Your task to perform on an android device: Toggle the flashlight Image 0: 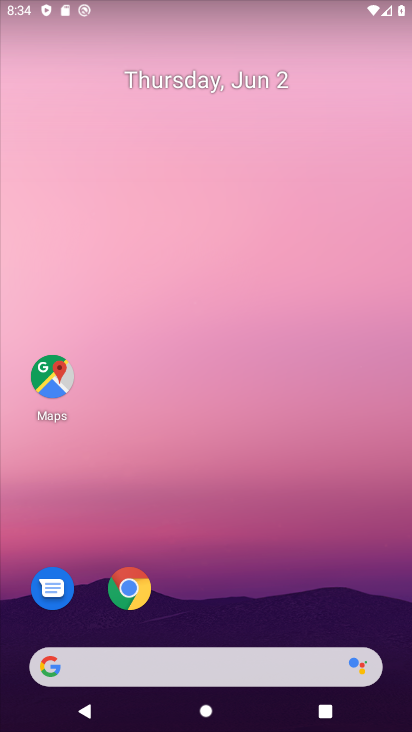
Step 0: drag from (354, 8) to (300, 466)
Your task to perform on an android device: Toggle the flashlight Image 1: 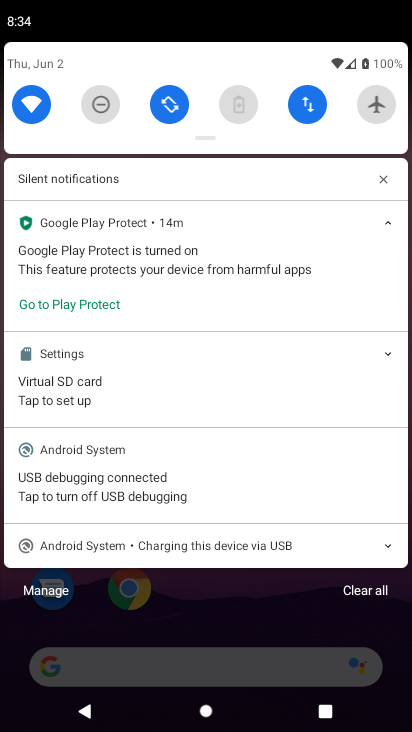
Step 1: drag from (256, 144) to (223, 555)
Your task to perform on an android device: Toggle the flashlight Image 2: 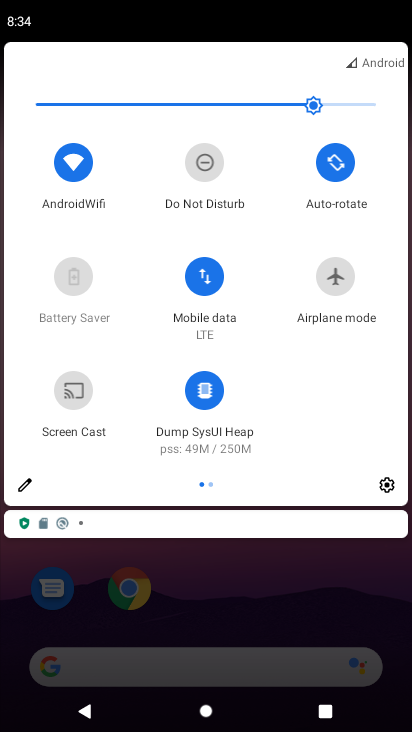
Step 2: click (24, 476)
Your task to perform on an android device: Toggle the flashlight Image 3: 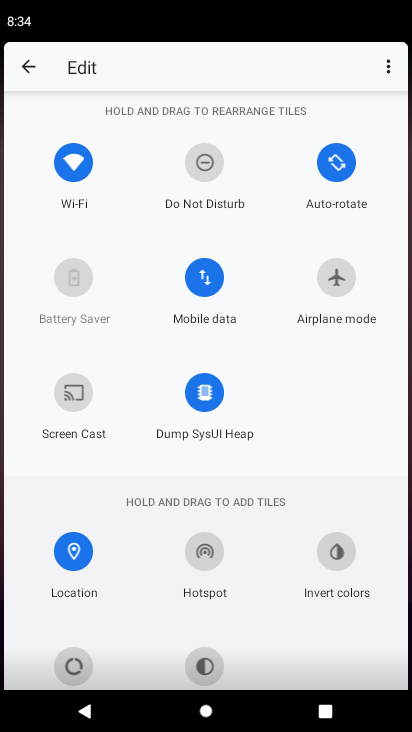
Step 3: task complete